Your task to perform on an android device: Toggle the flashlight Image 0: 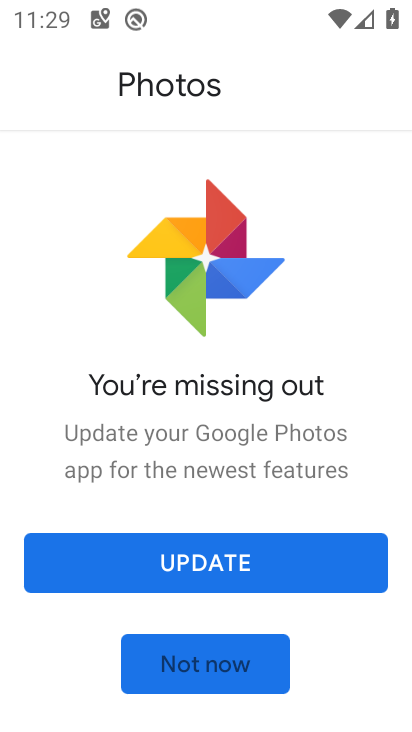
Step 0: press home button
Your task to perform on an android device: Toggle the flashlight Image 1: 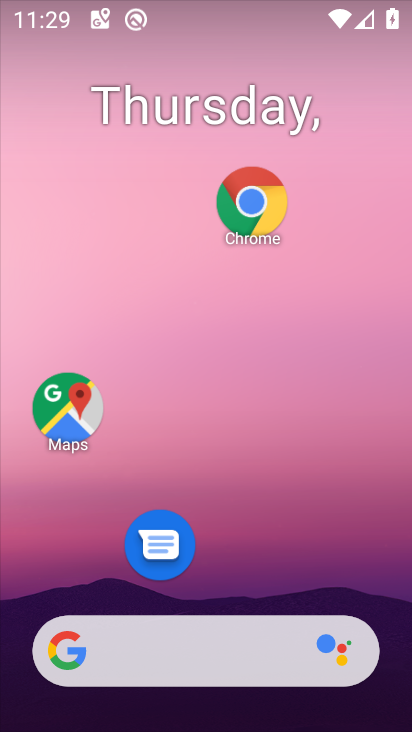
Step 1: task complete